Your task to perform on an android device: Open Chrome and go to settings Image 0: 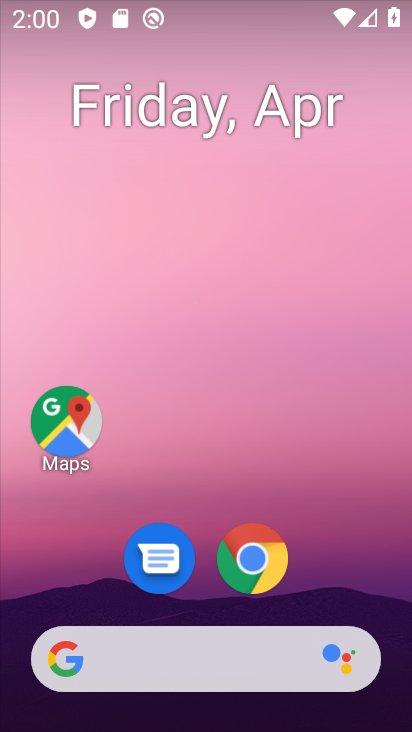
Step 0: click (254, 547)
Your task to perform on an android device: Open Chrome and go to settings Image 1: 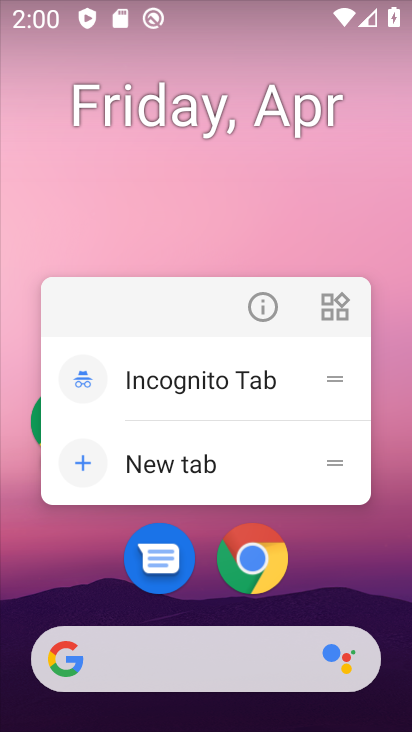
Step 1: click (261, 561)
Your task to perform on an android device: Open Chrome and go to settings Image 2: 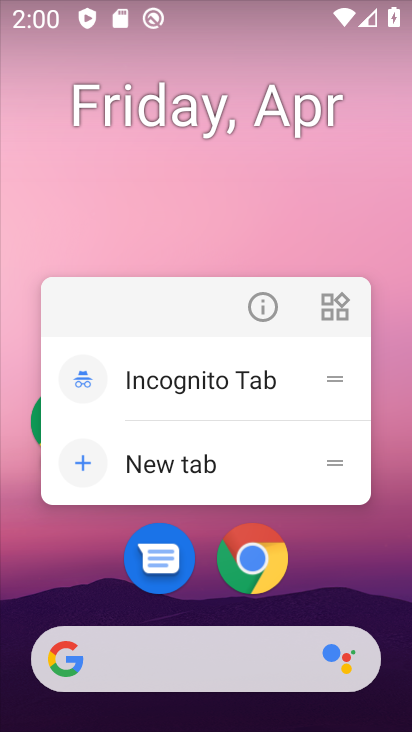
Step 2: click (259, 561)
Your task to perform on an android device: Open Chrome and go to settings Image 3: 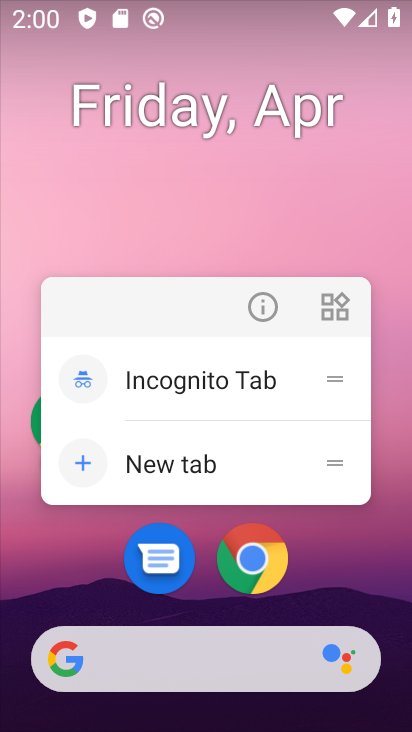
Step 3: click (257, 554)
Your task to perform on an android device: Open Chrome and go to settings Image 4: 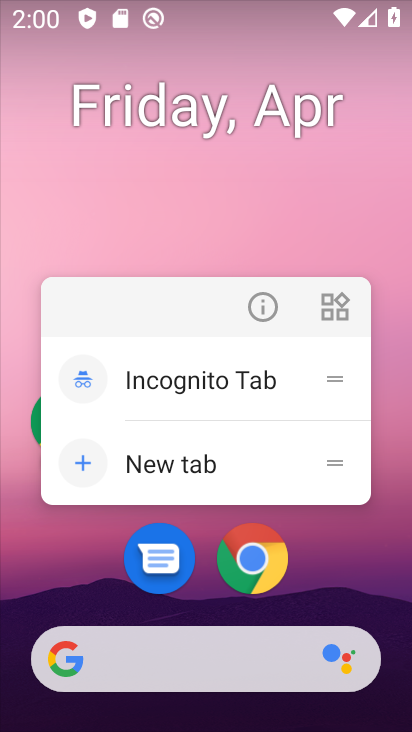
Step 4: click (258, 556)
Your task to perform on an android device: Open Chrome and go to settings Image 5: 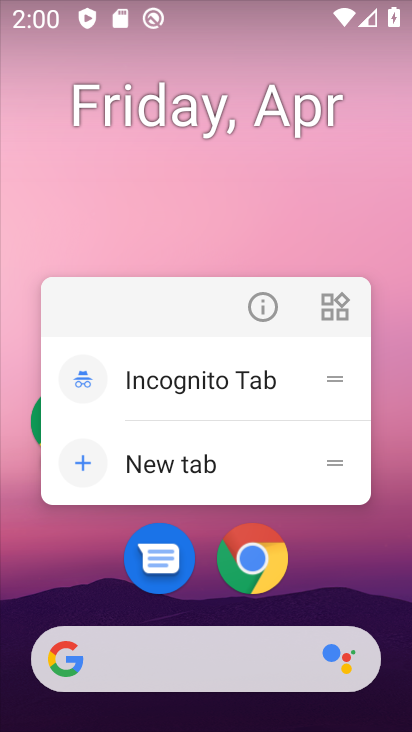
Step 5: click (265, 561)
Your task to perform on an android device: Open Chrome and go to settings Image 6: 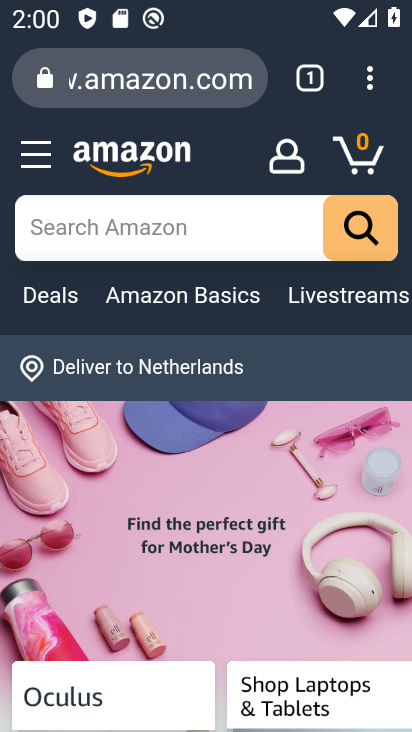
Step 6: task complete